Your task to perform on an android device: Open settings Image 0: 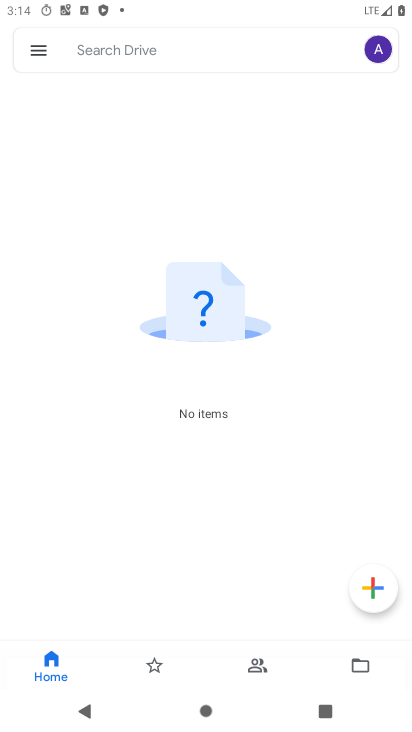
Step 0: press home button
Your task to perform on an android device: Open settings Image 1: 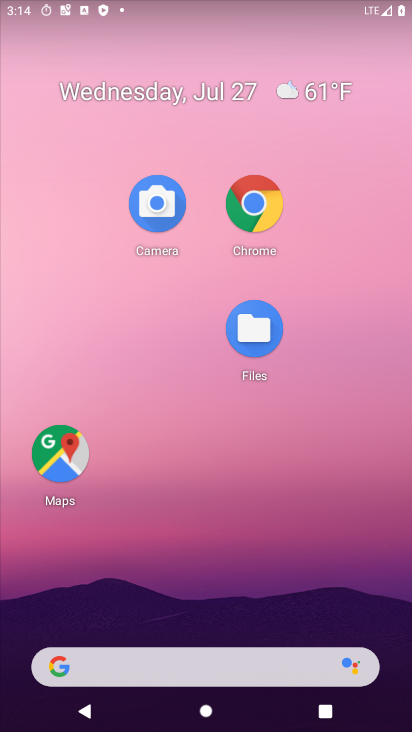
Step 1: drag from (168, 608) to (164, 245)
Your task to perform on an android device: Open settings Image 2: 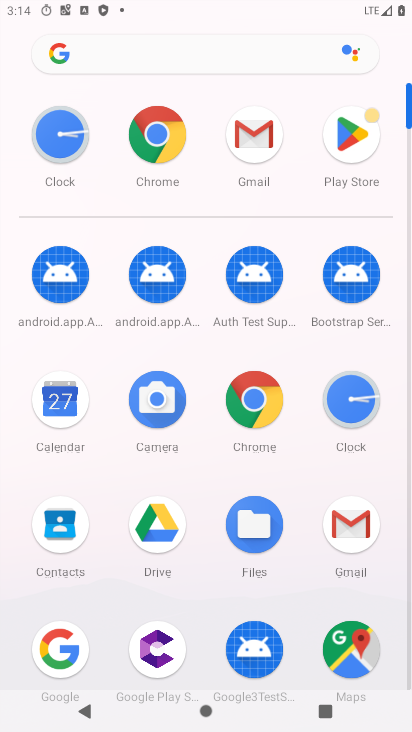
Step 2: drag from (116, 450) to (117, 128)
Your task to perform on an android device: Open settings Image 3: 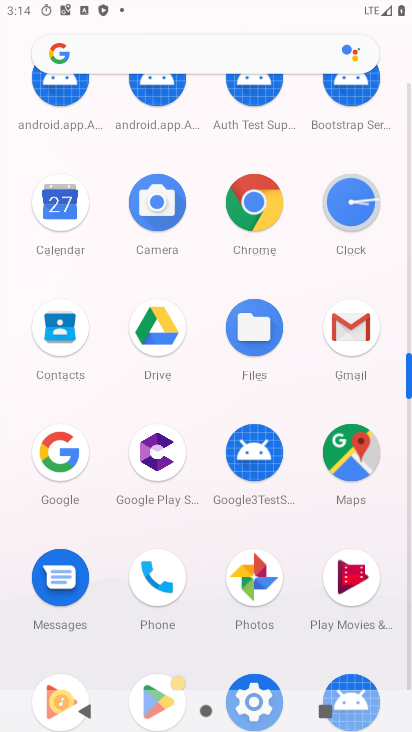
Step 3: click (256, 677)
Your task to perform on an android device: Open settings Image 4: 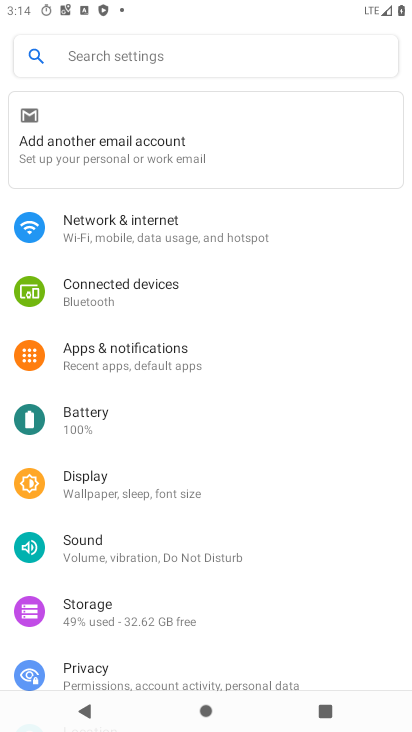
Step 4: task complete